Your task to perform on an android device: Open maps Image 0: 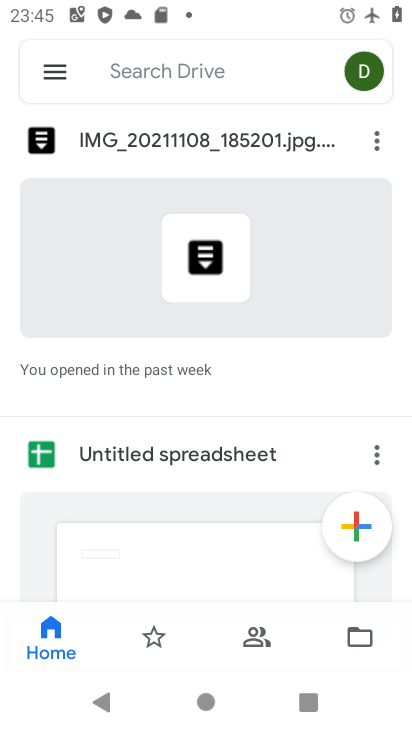
Step 0: press home button
Your task to perform on an android device: Open maps Image 1: 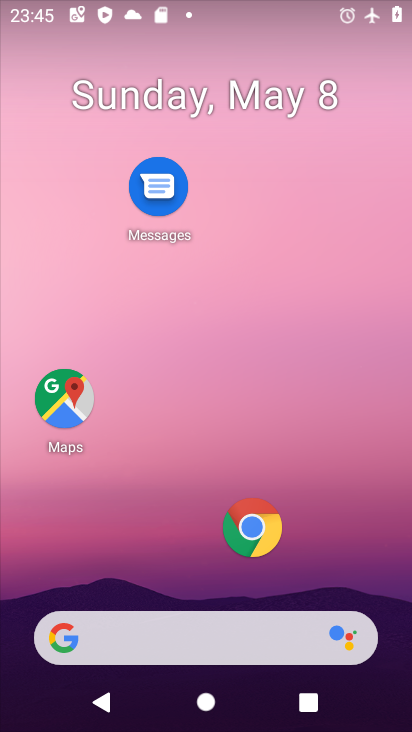
Step 1: click (64, 404)
Your task to perform on an android device: Open maps Image 2: 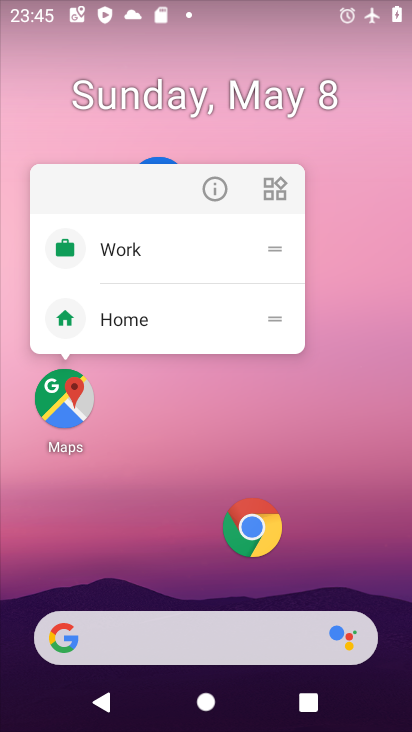
Step 2: click (64, 404)
Your task to perform on an android device: Open maps Image 3: 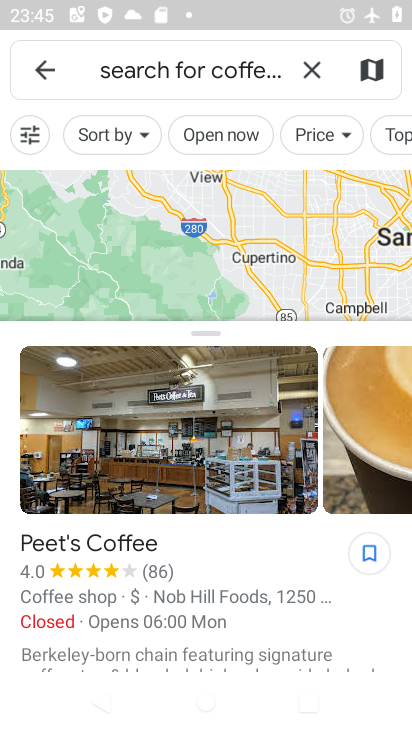
Step 3: click (309, 69)
Your task to perform on an android device: Open maps Image 4: 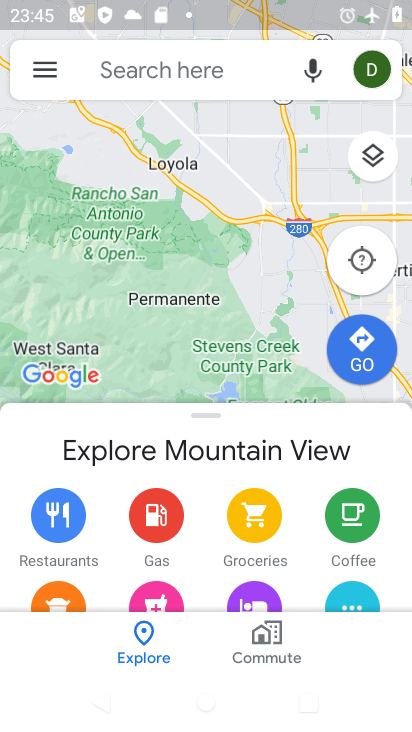
Step 4: task complete